Your task to perform on an android device: delete location history Image 0: 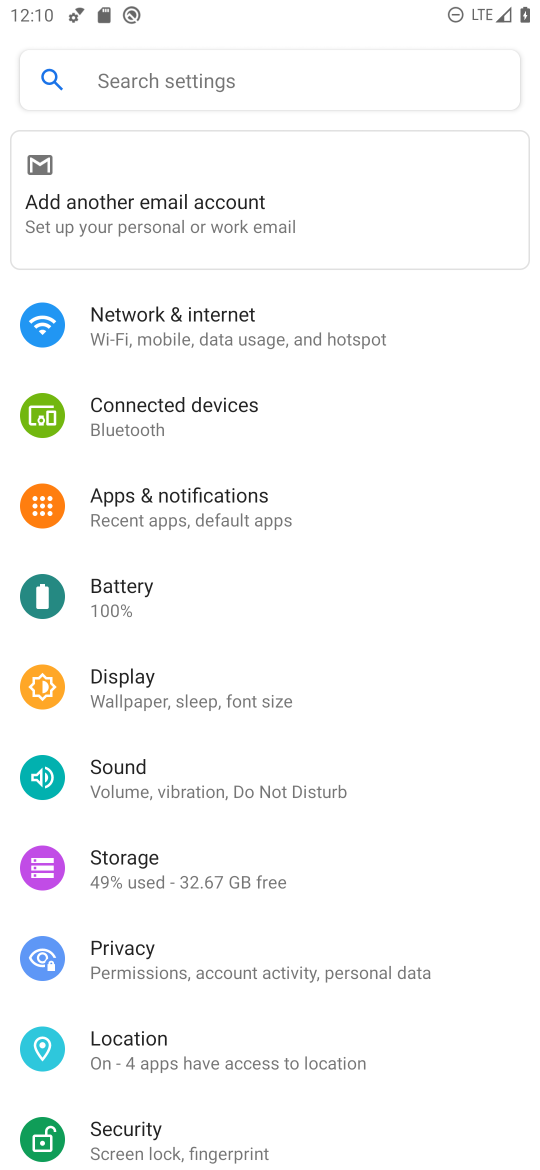
Step 0: press home button
Your task to perform on an android device: delete location history Image 1: 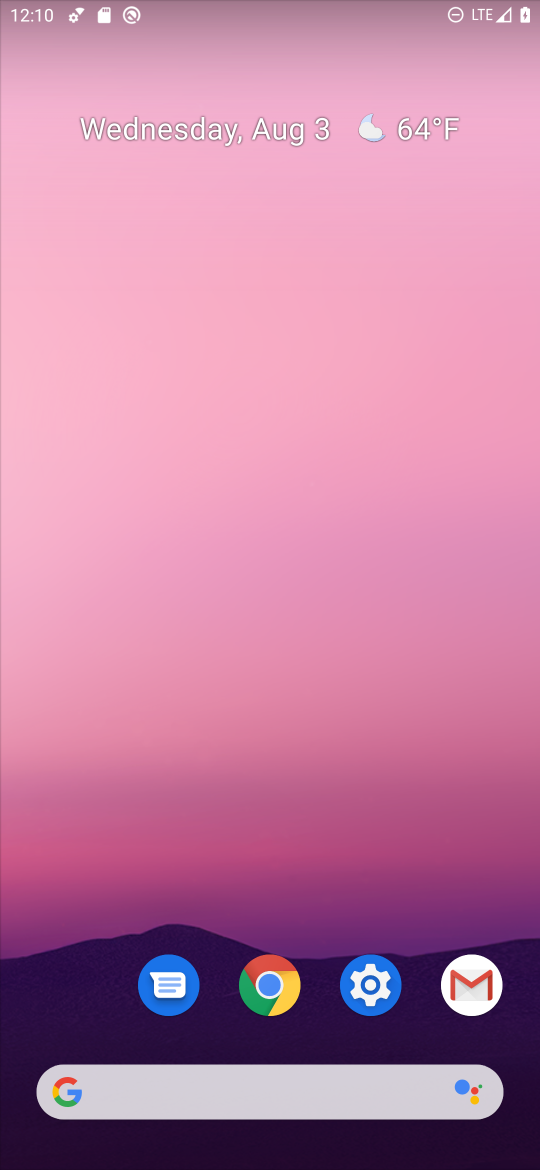
Step 1: click (386, 989)
Your task to perform on an android device: delete location history Image 2: 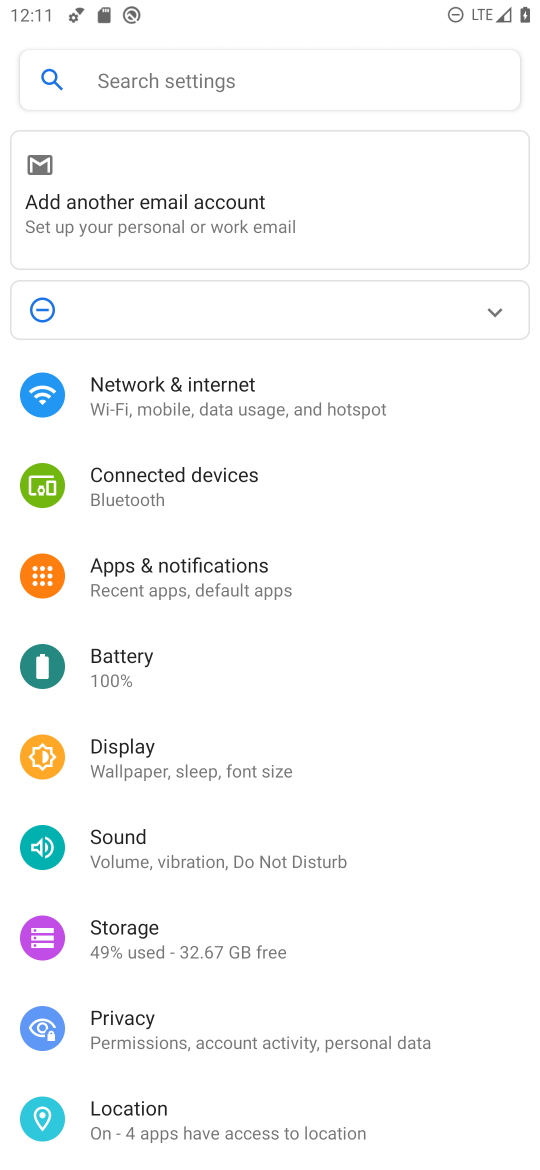
Step 2: click (197, 1114)
Your task to perform on an android device: delete location history Image 3: 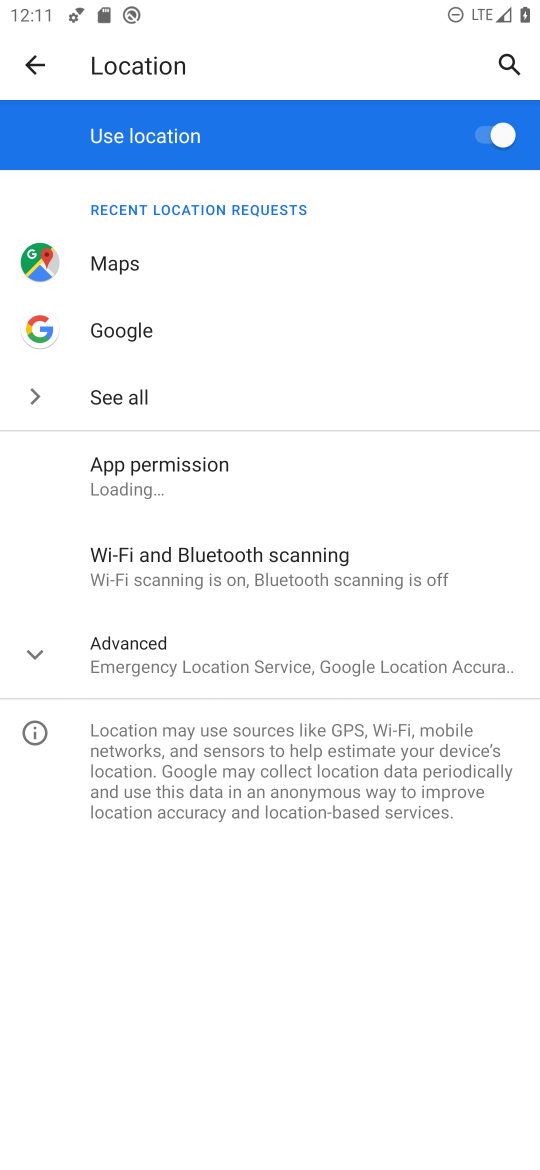
Step 3: click (51, 654)
Your task to perform on an android device: delete location history Image 4: 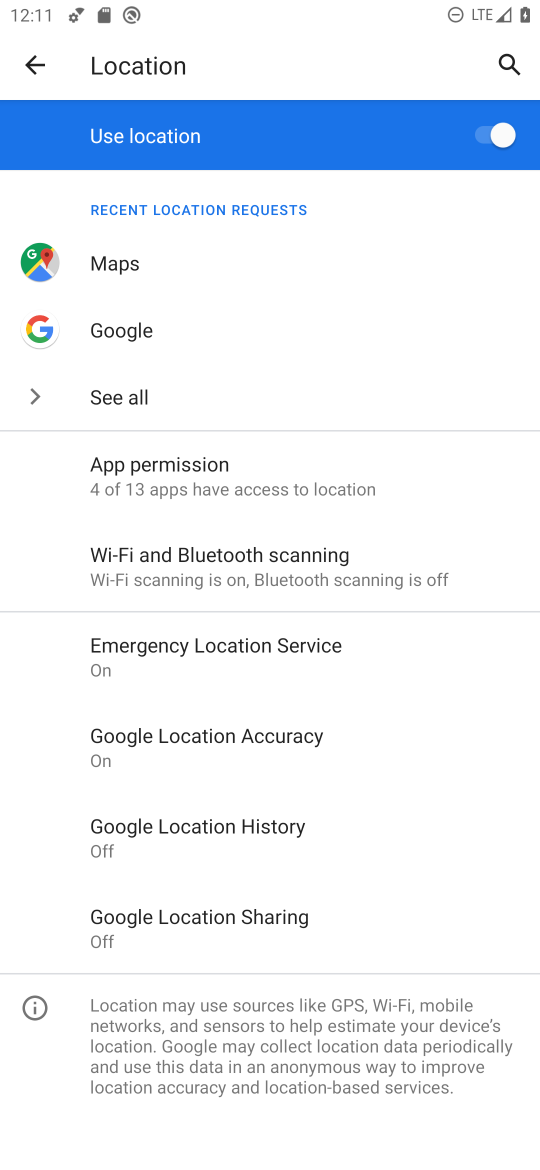
Step 4: click (223, 841)
Your task to perform on an android device: delete location history Image 5: 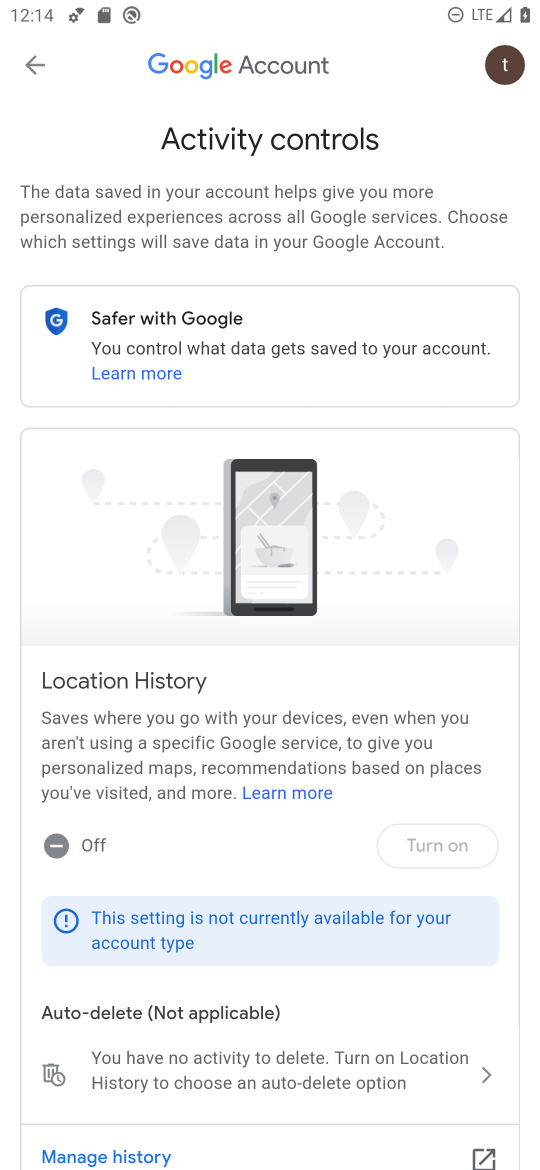
Step 5: task complete